Your task to perform on an android device: set the stopwatch Image 0: 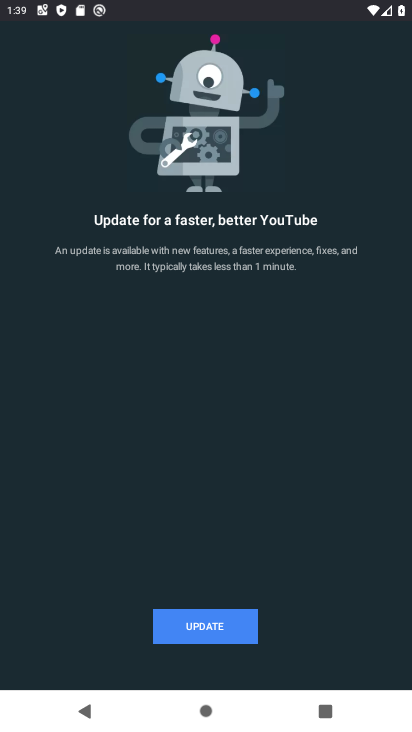
Step 0: press home button
Your task to perform on an android device: set the stopwatch Image 1: 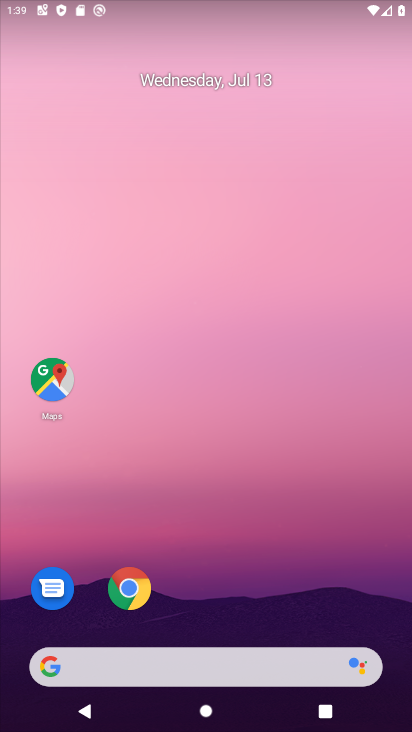
Step 1: drag from (173, 617) to (245, 309)
Your task to perform on an android device: set the stopwatch Image 2: 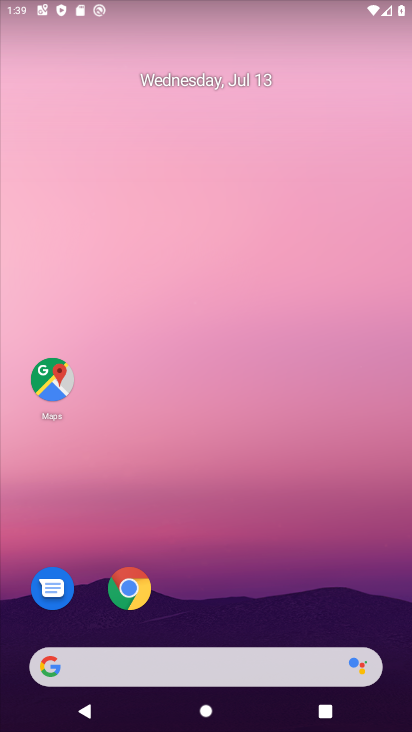
Step 2: drag from (182, 631) to (239, 324)
Your task to perform on an android device: set the stopwatch Image 3: 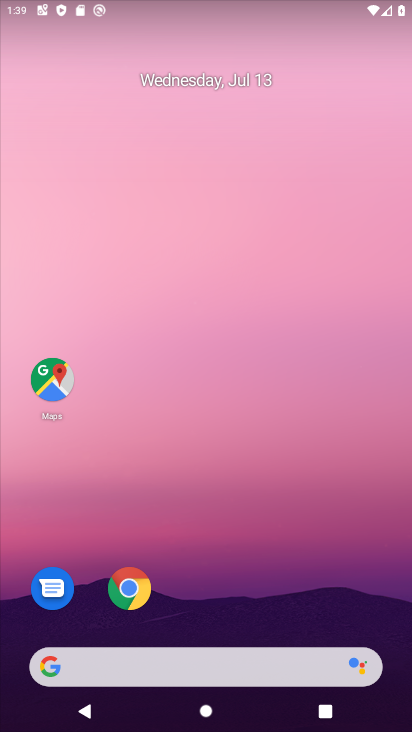
Step 3: drag from (191, 652) to (301, 332)
Your task to perform on an android device: set the stopwatch Image 4: 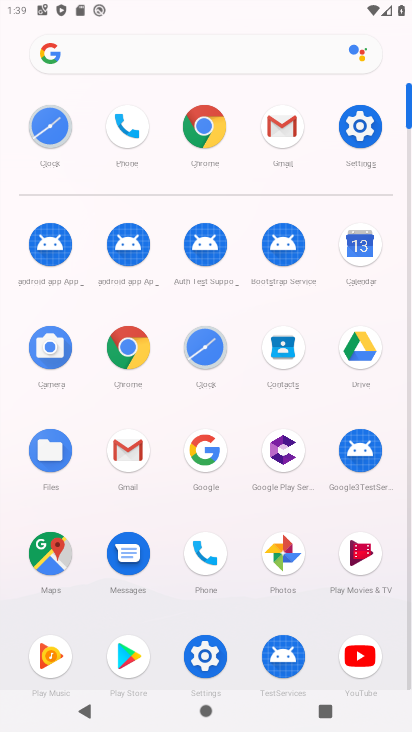
Step 4: click (190, 359)
Your task to perform on an android device: set the stopwatch Image 5: 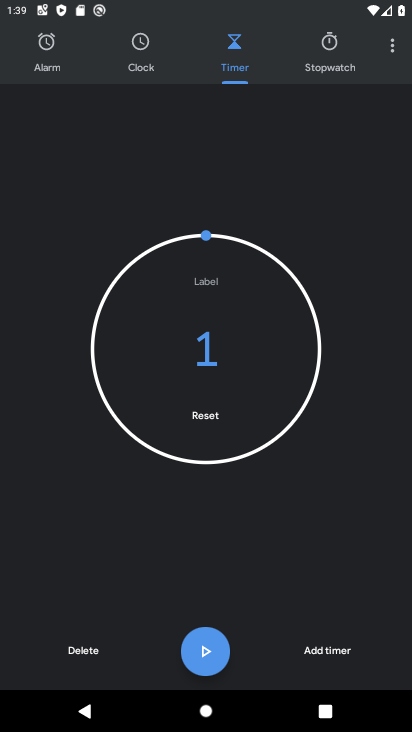
Step 5: click (335, 66)
Your task to perform on an android device: set the stopwatch Image 6: 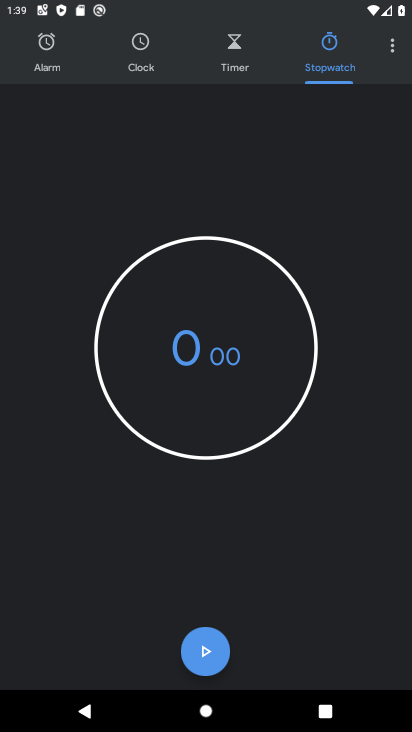
Step 6: click (203, 660)
Your task to perform on an android device: set the stopwatch Image 7: 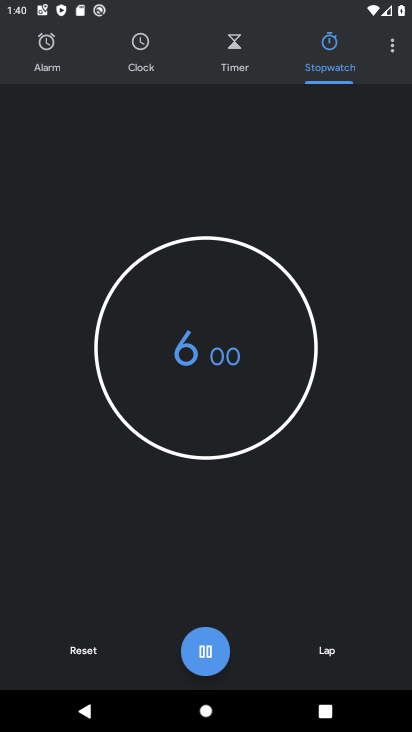
Step 7: click (203, 660)
Your task to perform on an android device: set the stopwatch Image 8: 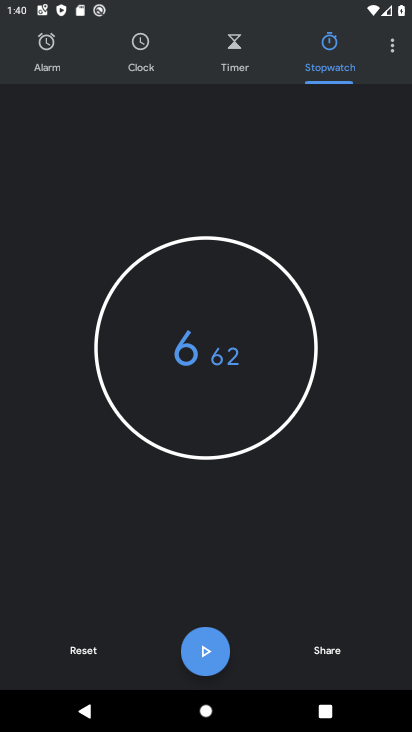
Step 8: task complete